Your task to perform on an android device: Show me popular games on the Play Store Image 0: 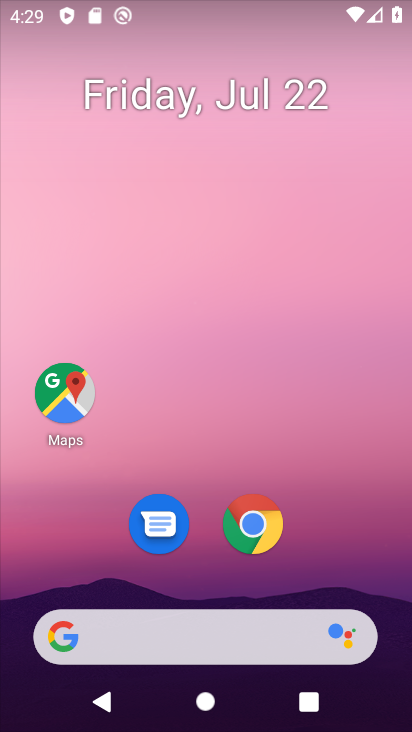
Step 0: drag from (319, 551) to (268, 98)
Your task to perform on an android device: Show me popular games on the Play Store Image 1: 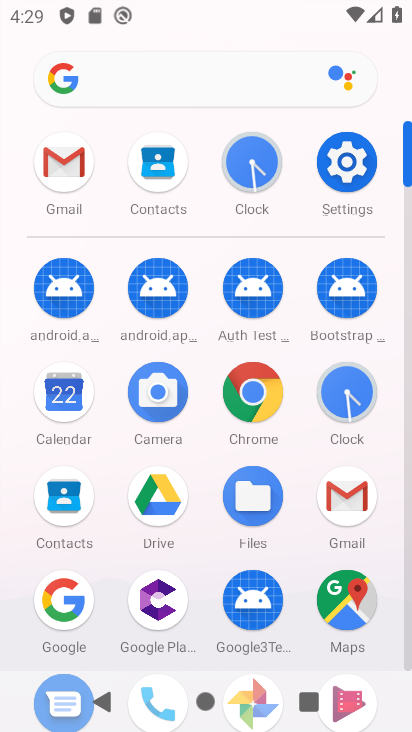
Step 1: drag from (222, 497) to (240, 260)
Your task to perform on an android device: Show me popular games on the Play Store Image 2: 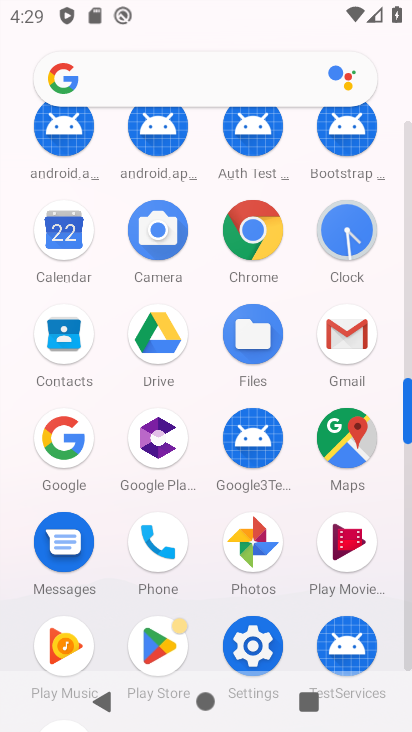
Step 2: click (170, 645)
Your task to perform on an android device: Show me popular games on the Play Store Image 3: 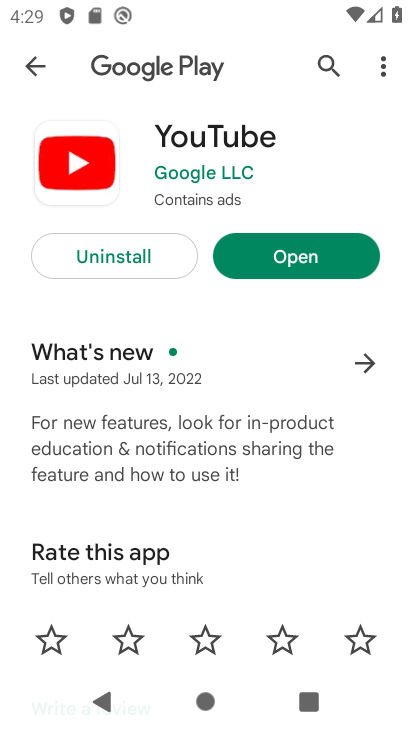
Step 3: click (29, 67)
Your task to perform on an android device: Show me popular games on the Play Store Image 4: 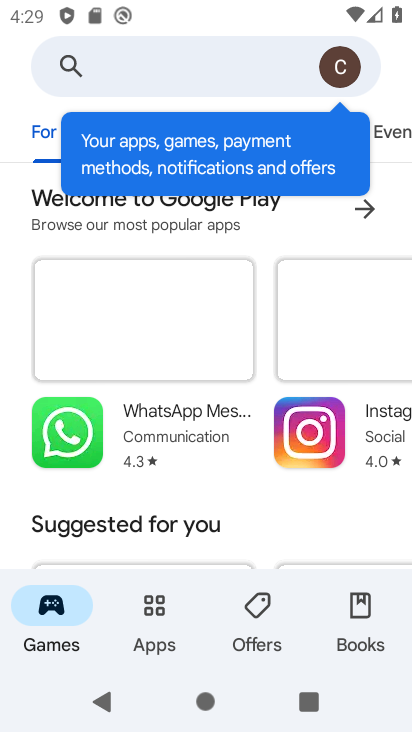
Step 4: drag from (277, 481) to (279, 201)
Your task to perform on an android device: Show me popular games on the Play Store Image 5: 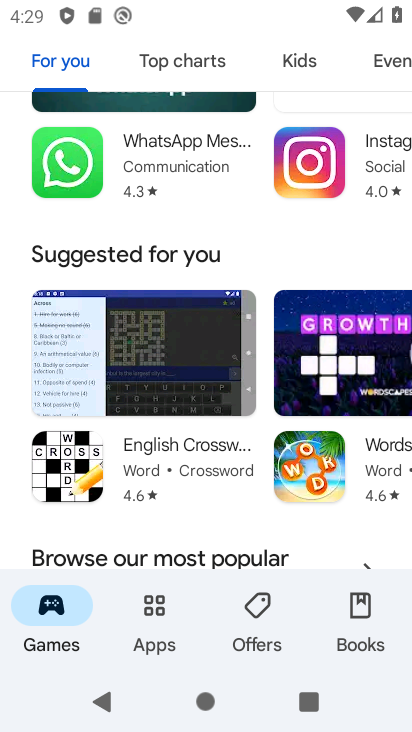
Step 5: drag from (236, 514) to (256, 278)
Your task to perform on an android device: Show me popular games on the Play Store Image 6: 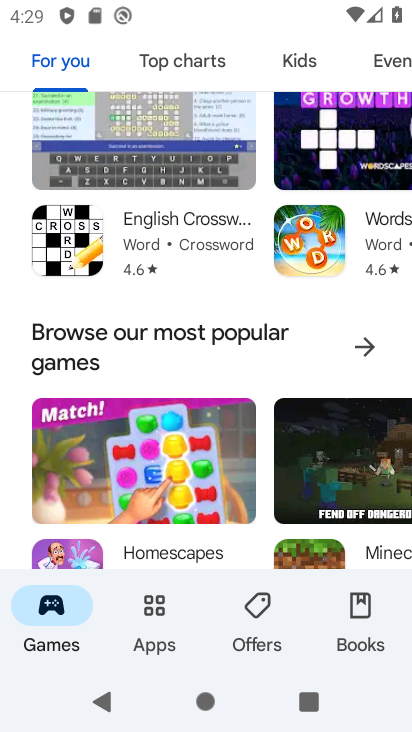
Step 6: click (369, 339)
Your task to perform on an android device: Show me popular games on the Play Store Image 7: 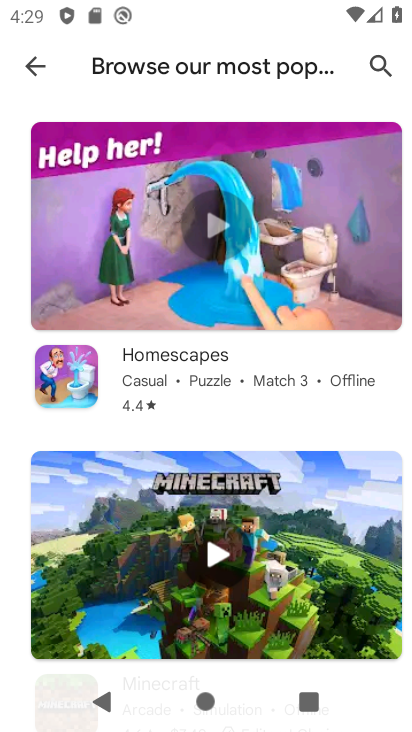
Step 7: task complete